Your task to perform on an android device: change the clock display to show seconds Image 0: 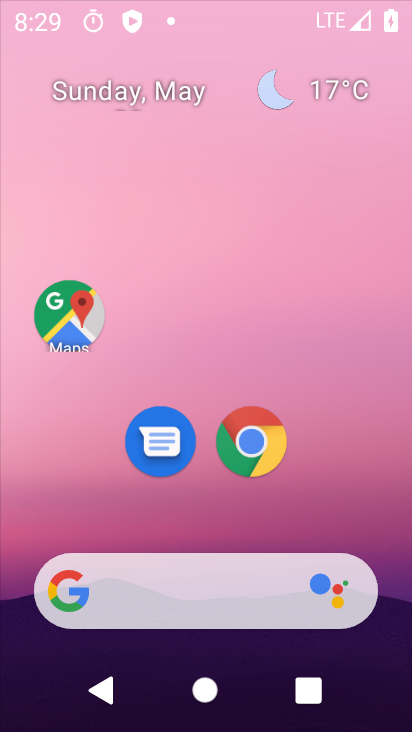
Step 0: click (284, 2)
Your task to perform on an android device: change the clock display to show seconds Image 1: 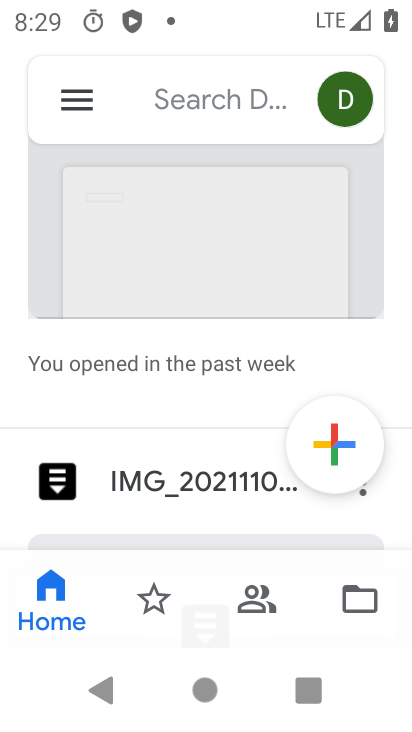
Step 1: press home button
Your task to perform on an android device: change the clock display to show seconds Image 2: 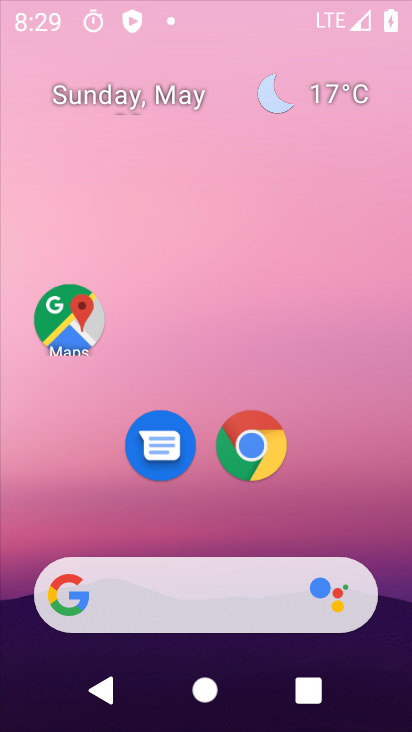
Step 2: drag from (187, 506) to (277, 113)
Your task to perform on an android device: change the clock display to show seconds Image 3: 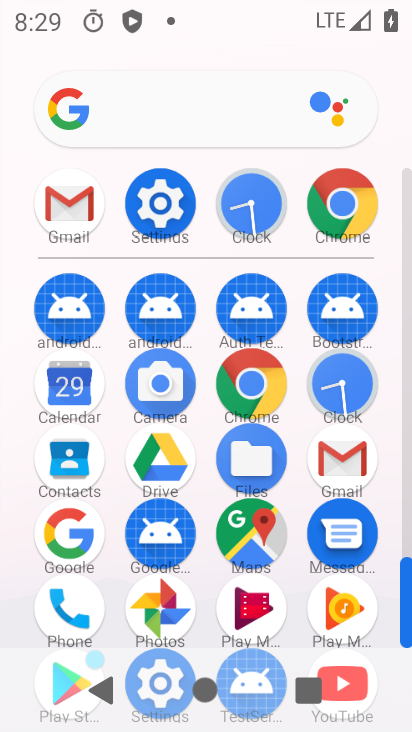
Step 3: click (342, 388)
Your task to perform on an android device: change the clock display to show seconds Image 4: 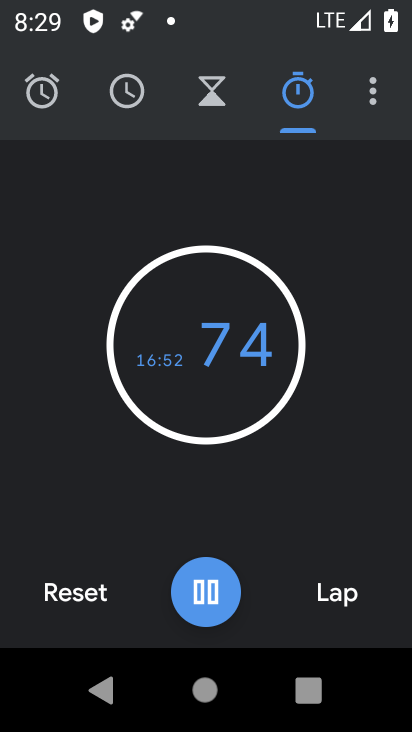
Step 4: drag from (376, 89) to (318, 213)
Your task to perform on an android device: change the clock display to show seconds Image 5: 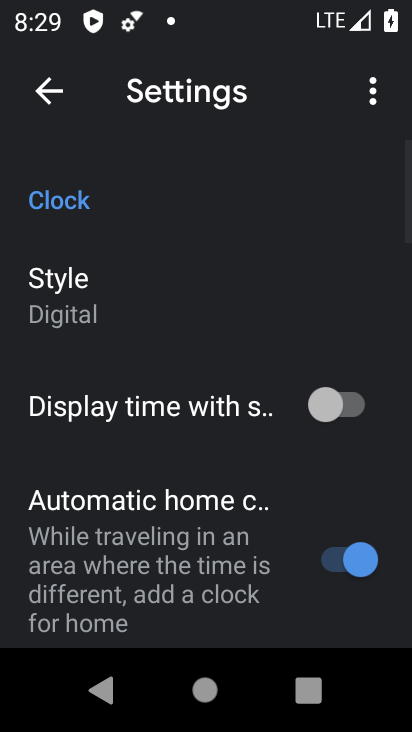
Step 5: drag from (174, 446) to (294, 169)
Your task to perform on an android device: change the clock display to show seconds Image 6: 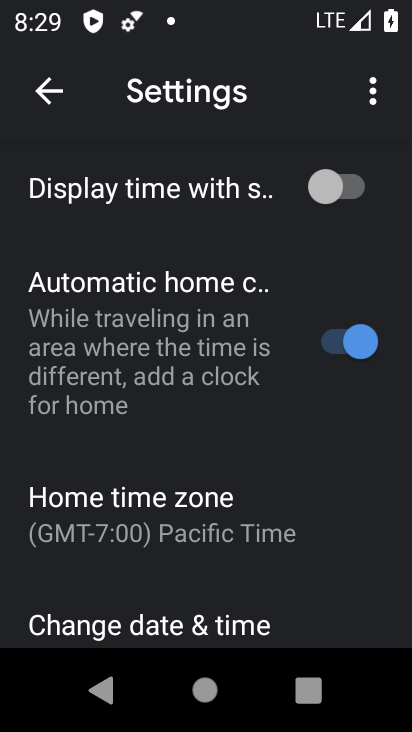
Step 6: click (304, 173)
Your task to perform on an android device: change the clock display to show seconds Image 7: 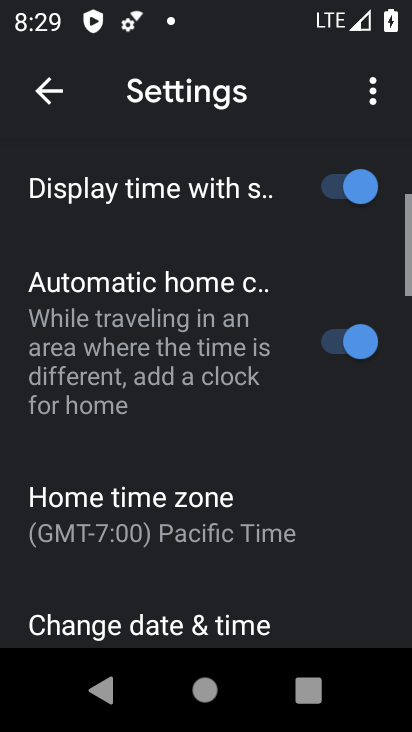
Step 7: task complete